Your task to perform on an android device: change the clock style Image 0: 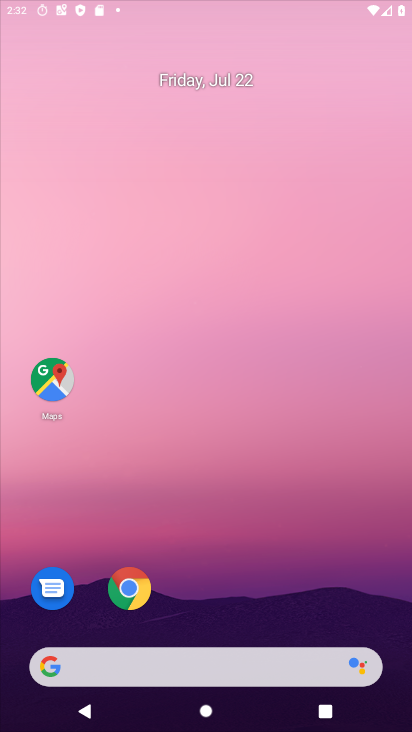
Step 0: press home button
Your task to perform on an android device: change the clock style Image 1: 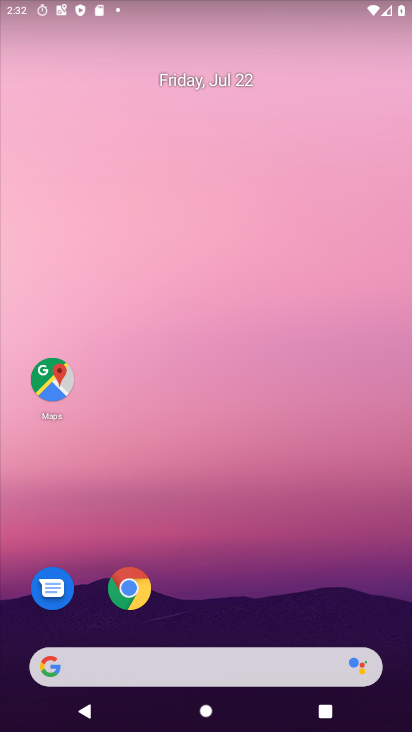
Step 1: drag from (201, 622) to (218, 5)
Your task to perform on an android device: change the clock style Image 2: 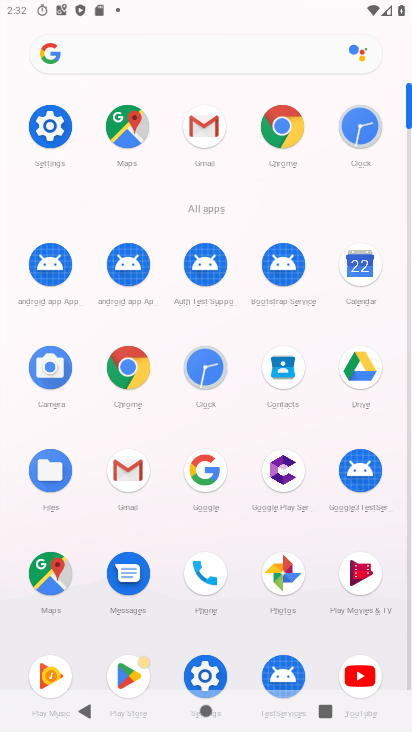
Step 2: click (201, 362)
Your task to perform on an android device: change the clock style Image 3: 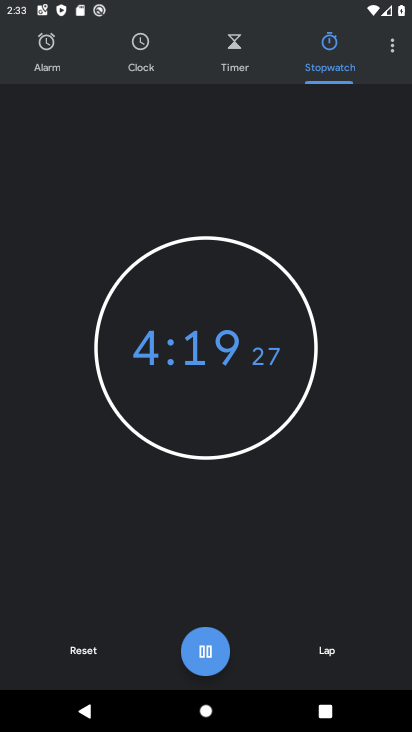
Step 3: click (393, 52)
Your task to perform on an android device: change the clock style Image 4: 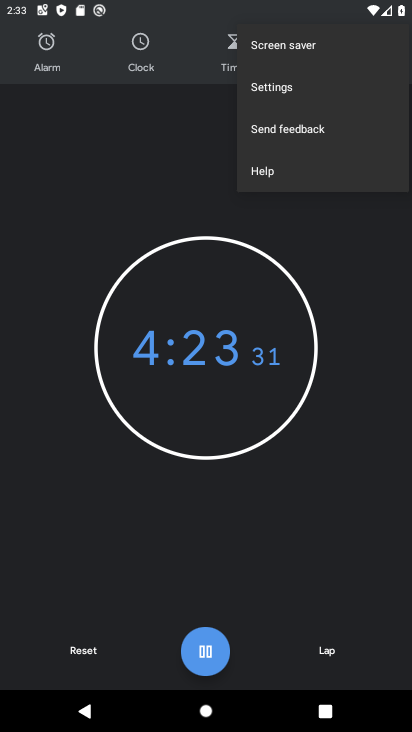
Step 4: click (304, 94)
Your task to perform on an android device: change the clock style Image 5: 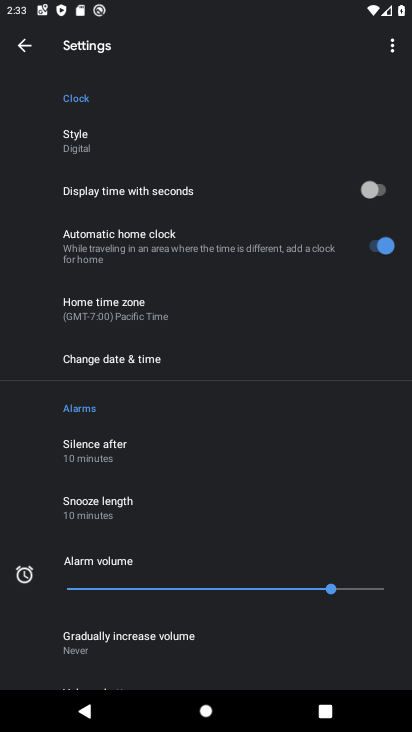
Step 5: click (117, 133)
Your task to perform on an android device: change the clock style Image 6: 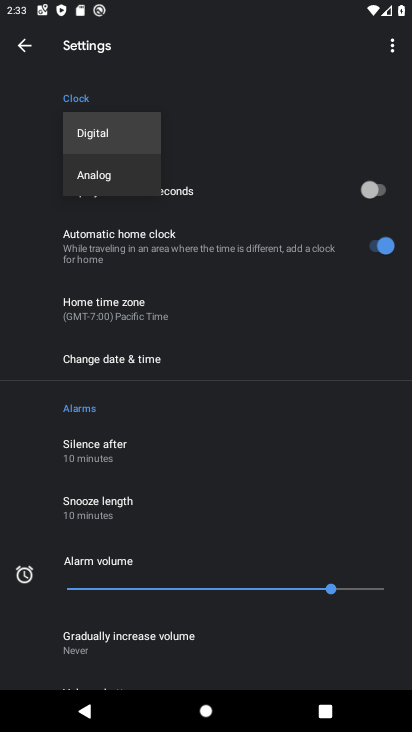
Step 6: click (135, 173)
Your task to perform on an android device: change the clock style Image 7: 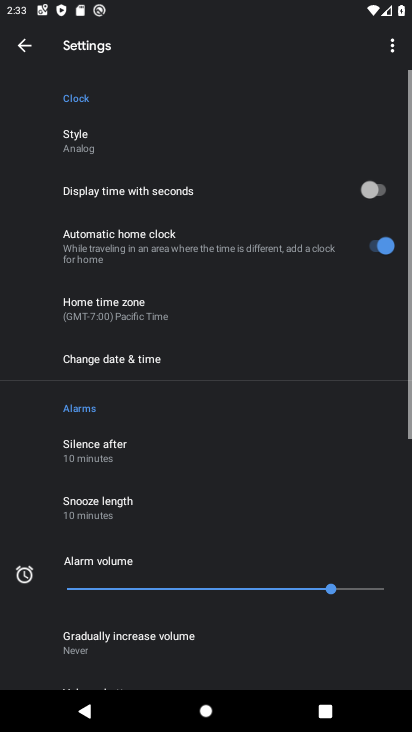
Step 7: task complete